Your task to perform on an android device: change the upload size in google photos Image 0: 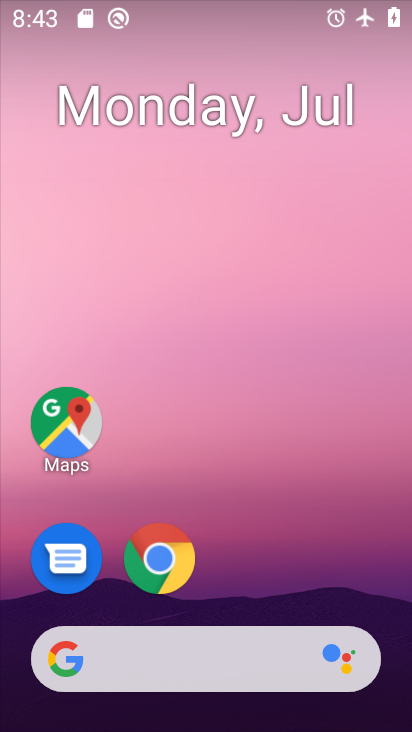
Step 0: drag from (306, 573) to (386, 130)
Your task to perform on an android device: change the upload size in google photos Image 1: 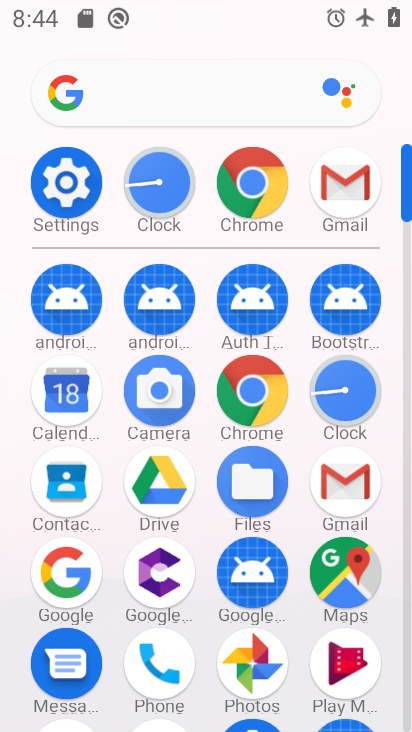
Step 1: click (256, 660)
Your task to perform on an android device: change the upload size in google photos Image 2: 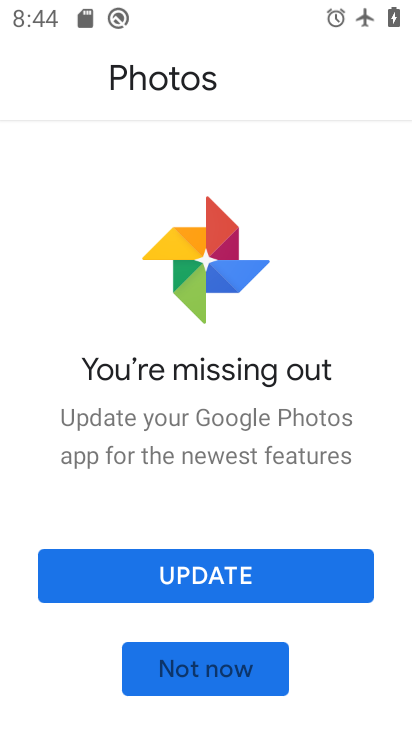
Step 2: click (248, 566)
Your task to perform on an android device: change the upload size in google photos Image 3: 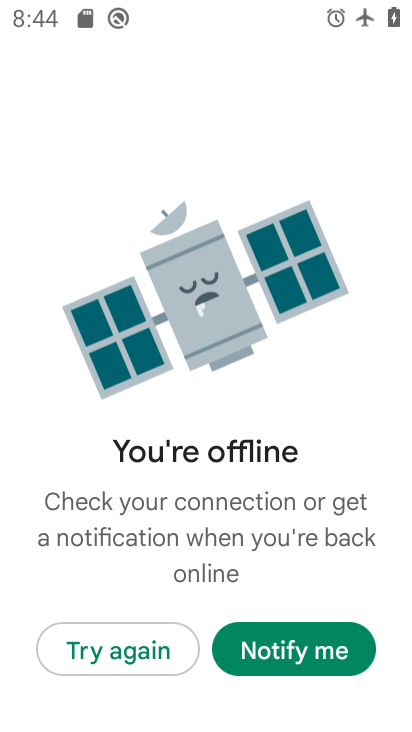
Step 3: task complete